Your task to perform on an android device: Open Reddit.com Image 0: 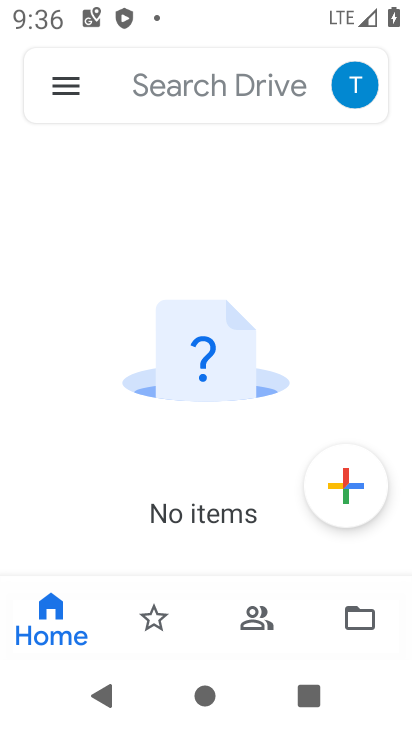
Step 0: press home button
Your task to perform on an android device: Open Reddit.com Image 1: 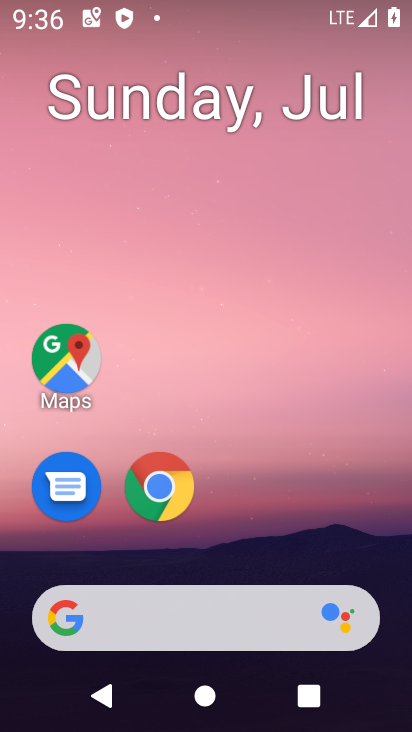
Step 1: drag from (332, 521) to (383, 376)
Your task to perform on an android device: Open Reddit.com Image 2: 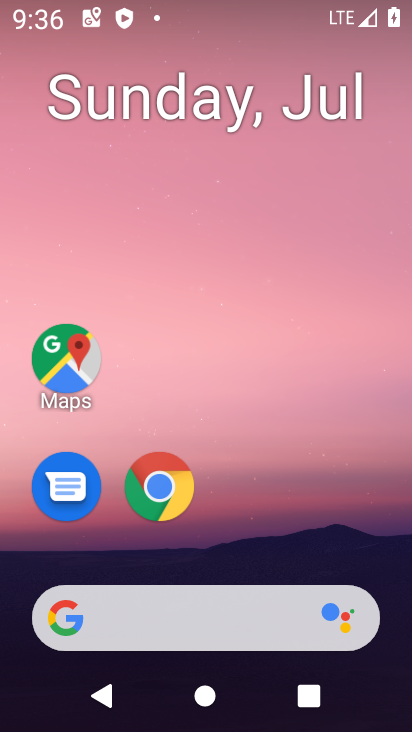
Step 2: drag from (339, 522) to (350, 137)
Your task to perform on an android device: Open Reddit.com Image 3: 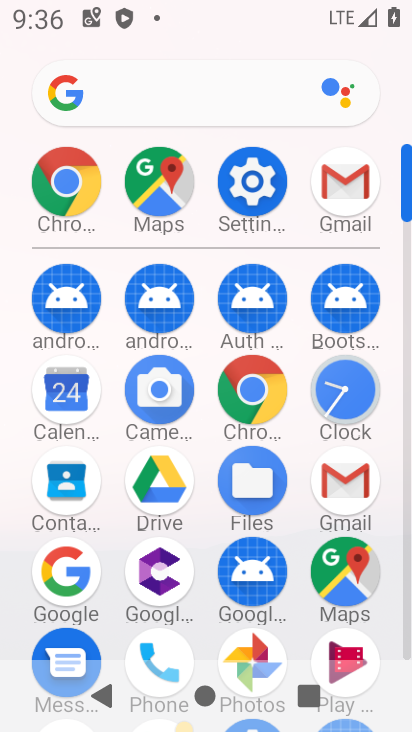
Step 3: click (256, 389)
Your task to perform on an android device: Open Reddit.com Image 4: 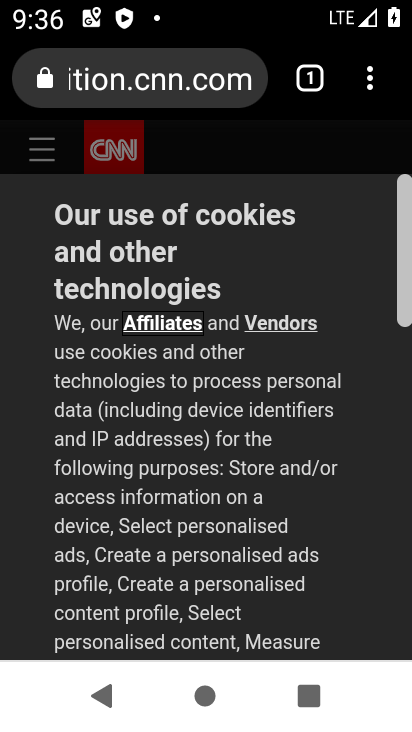
Step 4: click (194, 88)
Your task to perform on an android device: Open Reddit.com Image 5: 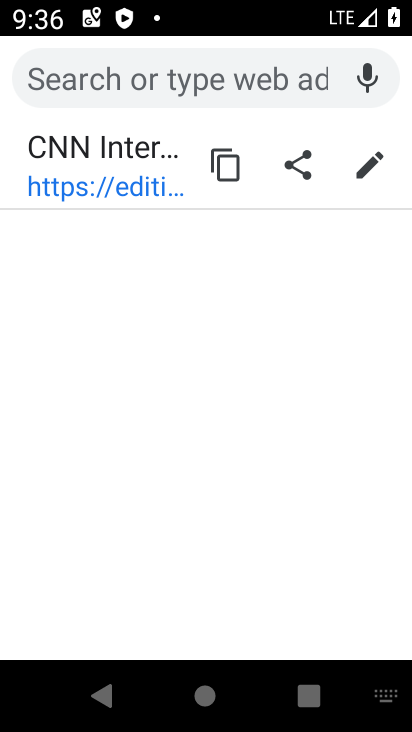
Step 5: type "reddit.com"
Your task to perform on an android device: Open Reddit.com Image 6: 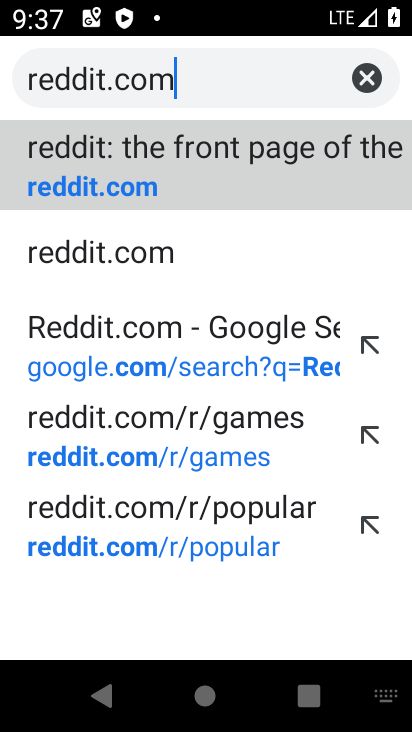
Step 6: click (220, 141)
Your task to perform on an android device: Open Reddit.com Image 7: 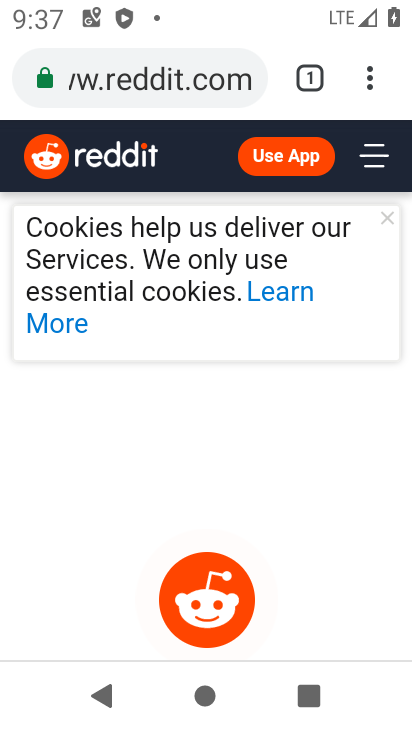
Step 7: task complete